Your task to perform on an android device: Open the calendar and show me this week's events Image 0: 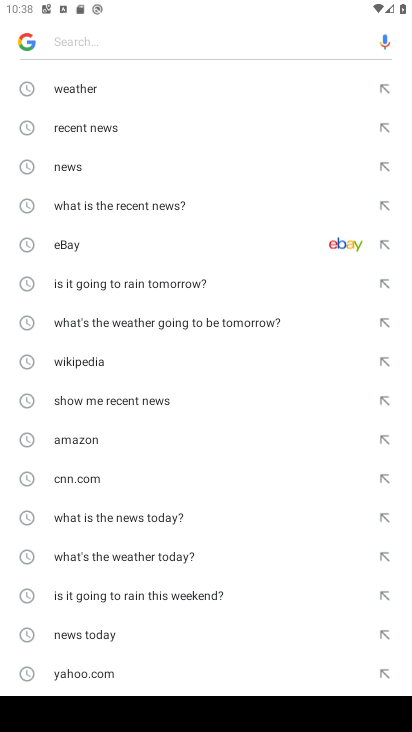
Step 0: press home button
Your task to perform on an android device: Open the calendar and show me this week's events Image 1: 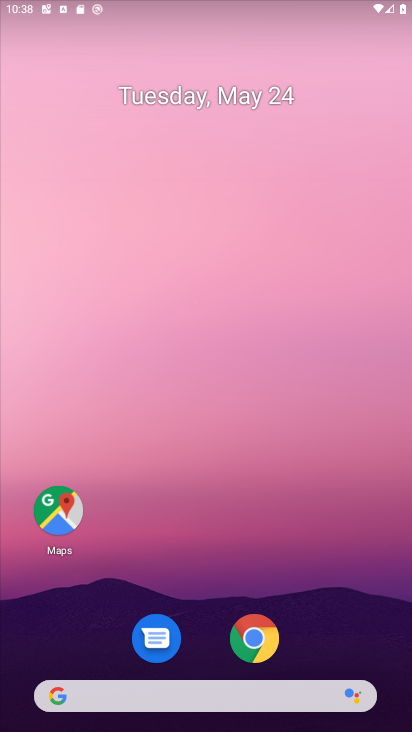
Step 1: drag from (163, 668) to (97, 79)
Your task to perform on an android device: Open the calendar and show me this week's events Image 2: 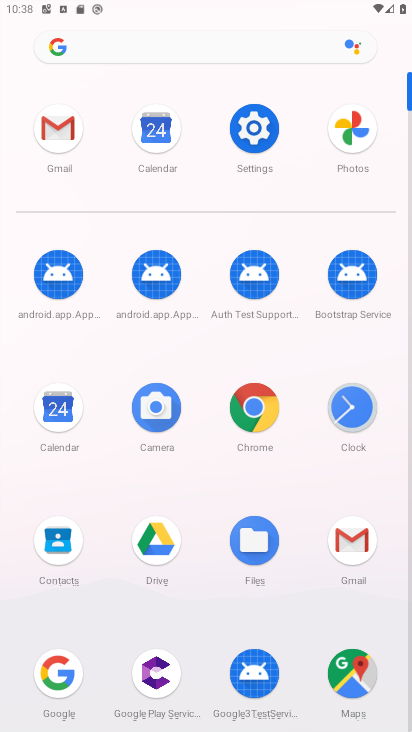
Step 2: click (53, 416)
Your task to perform on an android device: Open the calendar and show me this week's events Image 3: 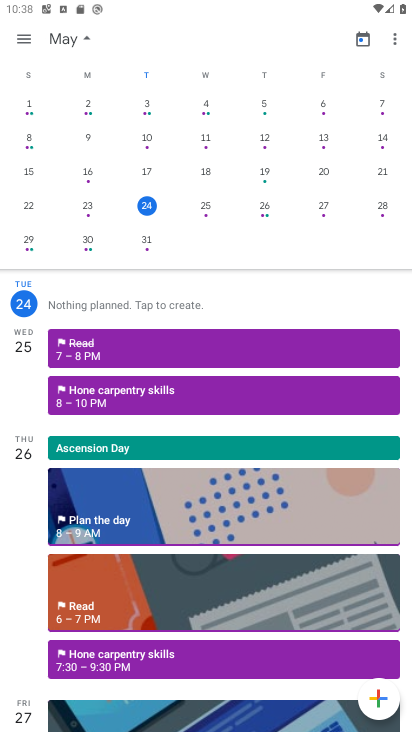
Step 3: task complete